Your task to perform on an android device: Check the news Image 0: 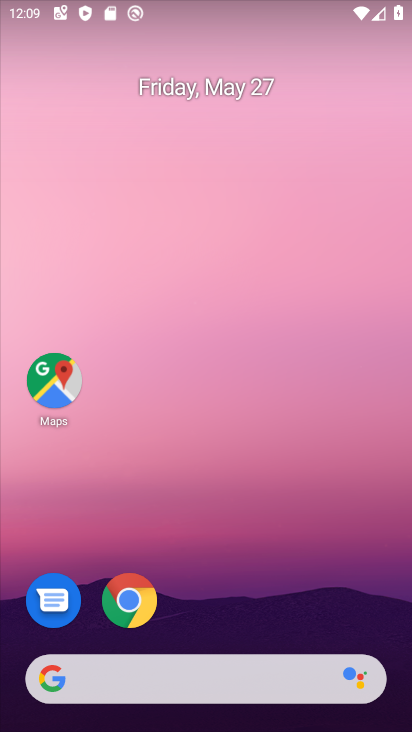
Step 0: click (177, 668)
Your task to perform on an android device: Check the news Image 1: 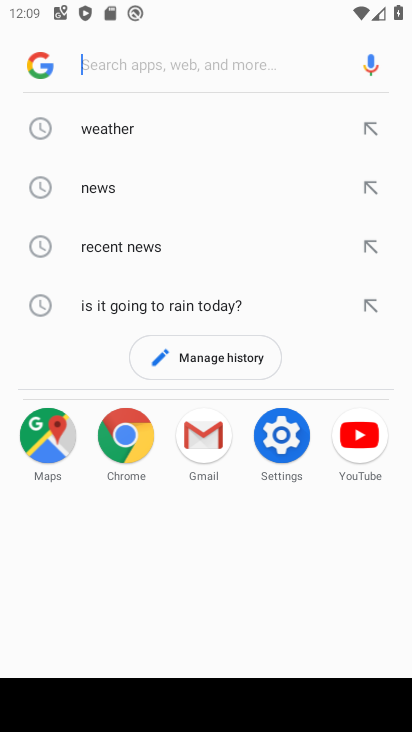
Step 1: click (159, 178)
Your task to perform on an android device: Check the news Image 2: 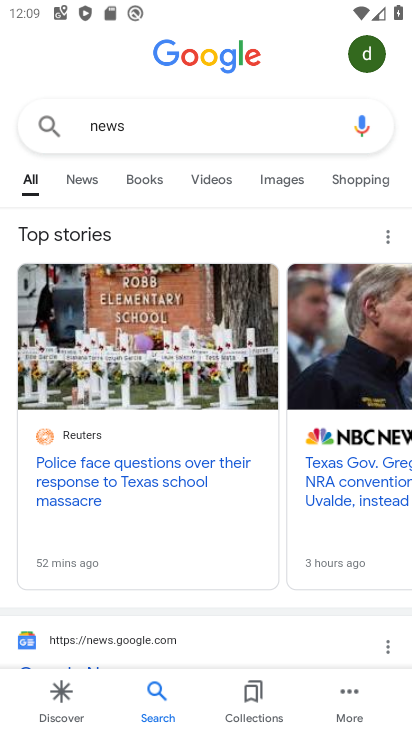
Step 2: task complete